Your task to perform on an android device: Go to display settings Image 0: 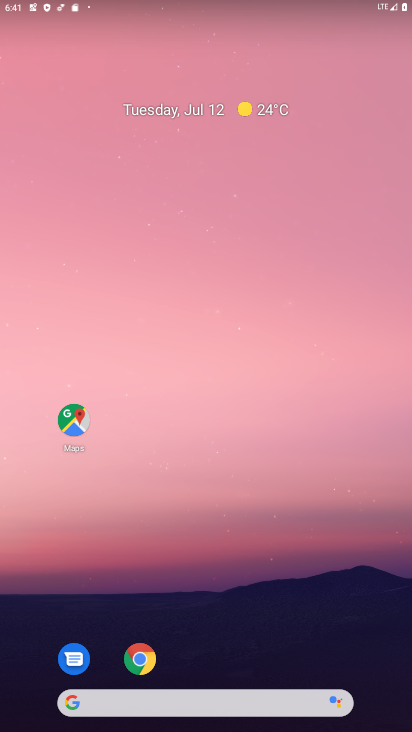
Step 0: drag from (374, 665) to (208, 6)
Your task to perform on an android device: Go to display settings Image 1: 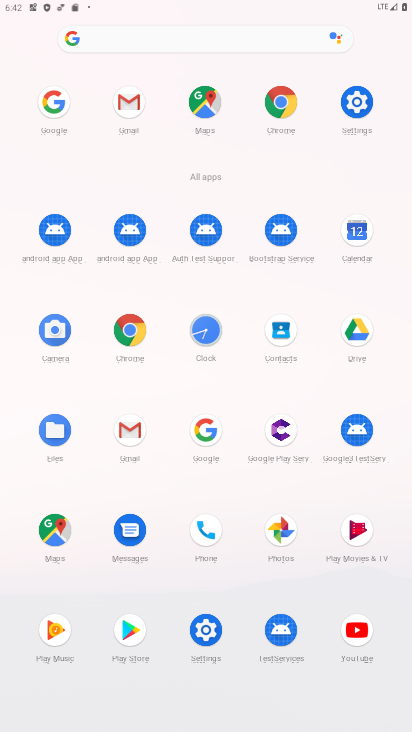
Step 1: click (193, 625)
Your task to perform on an android device: Go to display settings Image 2: 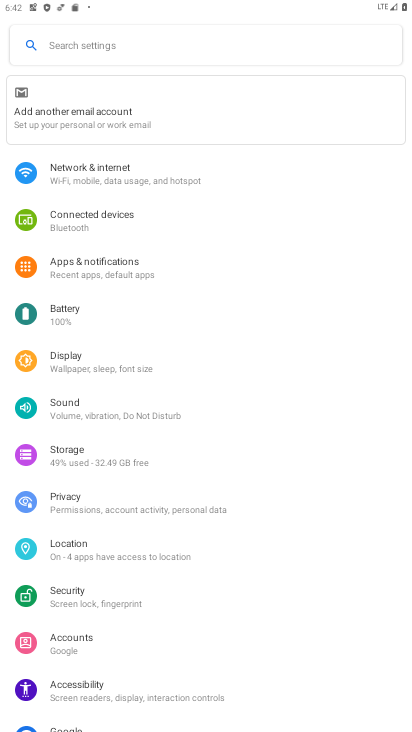
Step 2: click (63, 370)
Your task to perform on an android device: Go to display settings Image 3: 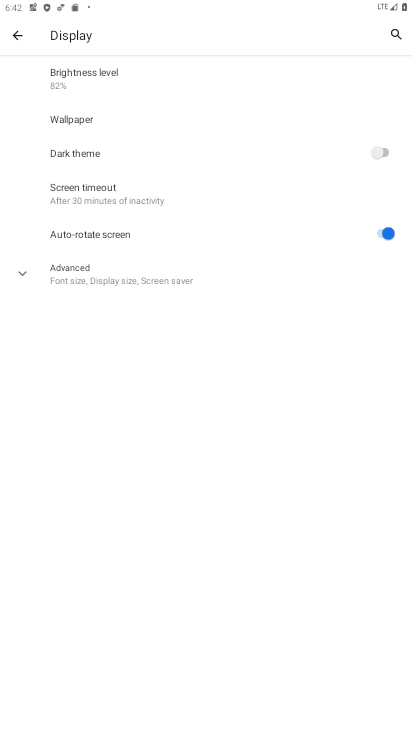
Step 3: task complete